Your task to perform on an android device: Go to Maps Image 0: 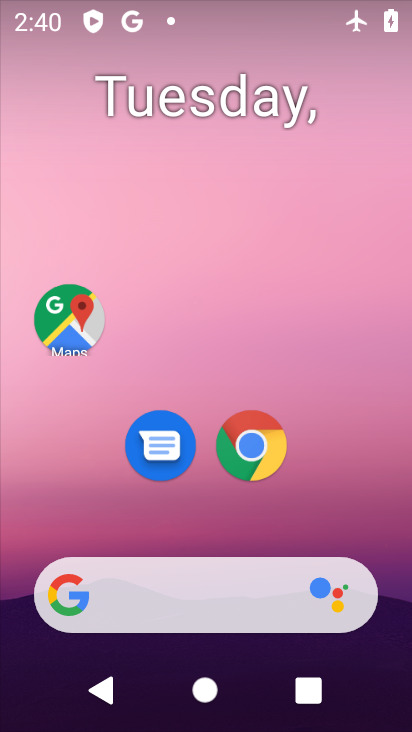
Step 0: click (66, 323)
Your task to perform on an android device: Go to Maps Image 1: 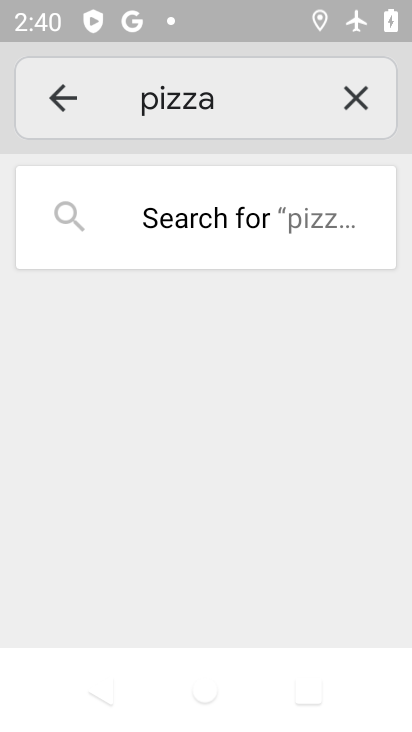
Step 1: click (364, 95)
Your task to perform on an android device: Go to Maps Image 2: 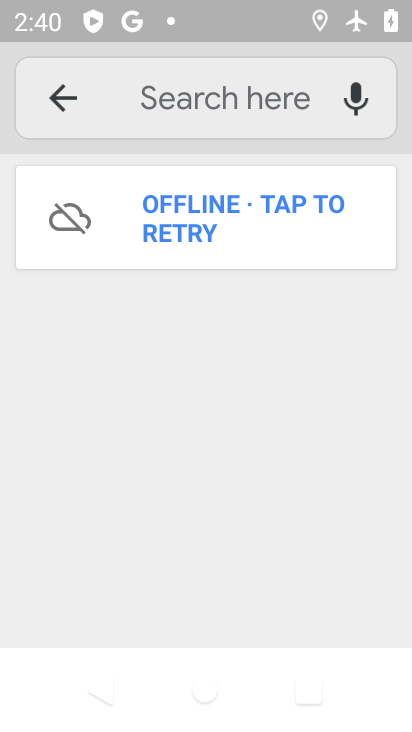
Step 2: task complete